Your task to perform on an android device: Show me popular games on the Play Store Image 0: 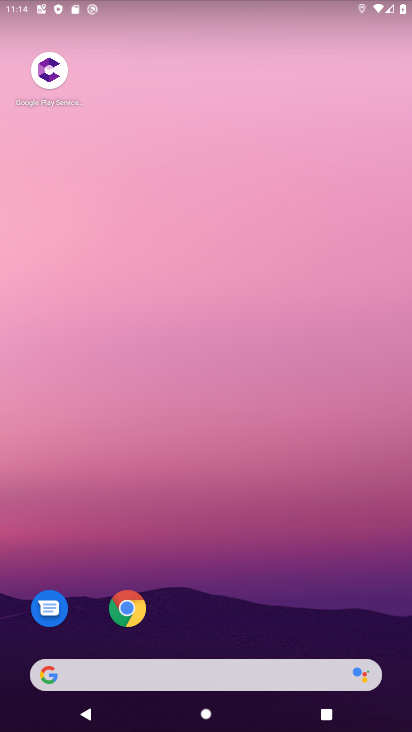
Step 0: drag from (275, 604) to (211, 0)
Your task to perform on an android device: Show me popular games on the Play Store Image 1: 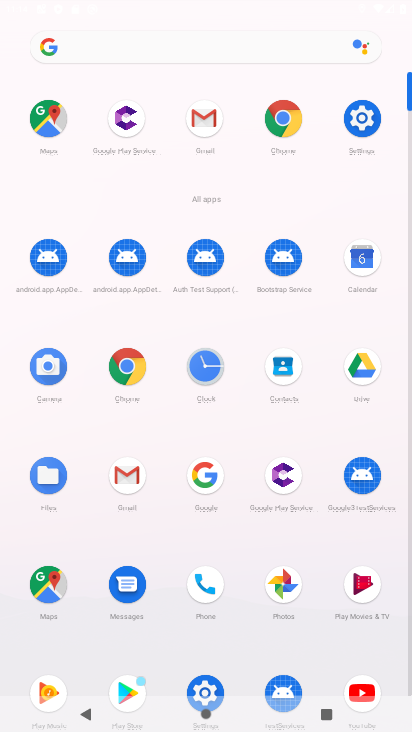
Step 1: click (127, 687)
Your task to perform on an android device: Show me popular games on the Play Store Image 2: 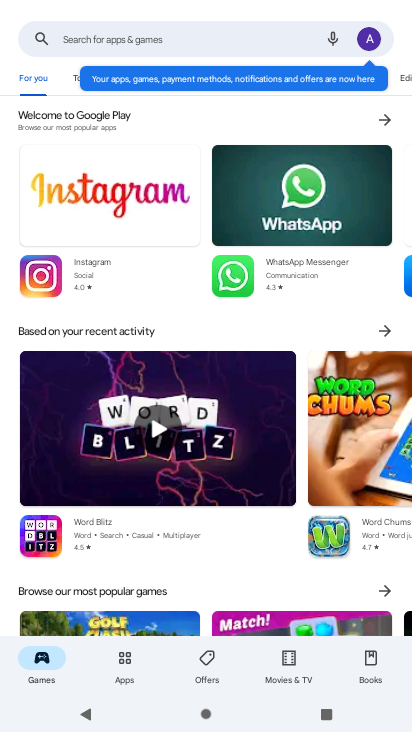
Step 2: click (163, 34)
Your task to perform on an android device: Show me popular games on the Play Store Image 3: 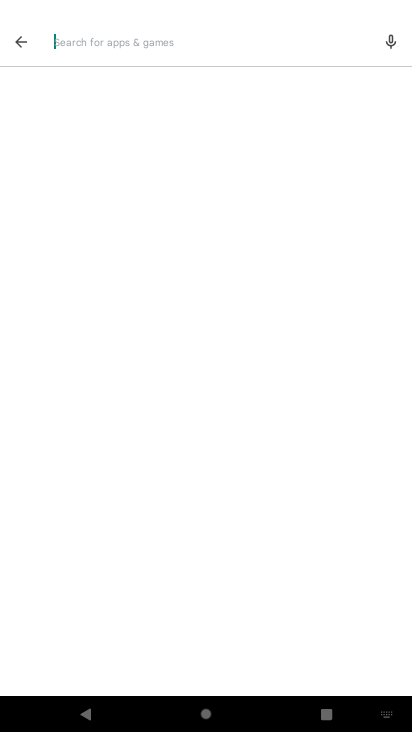
Step 3: type "popular games "
Your task to perform on an android device: Show me popular games on the Play Store Image 4: 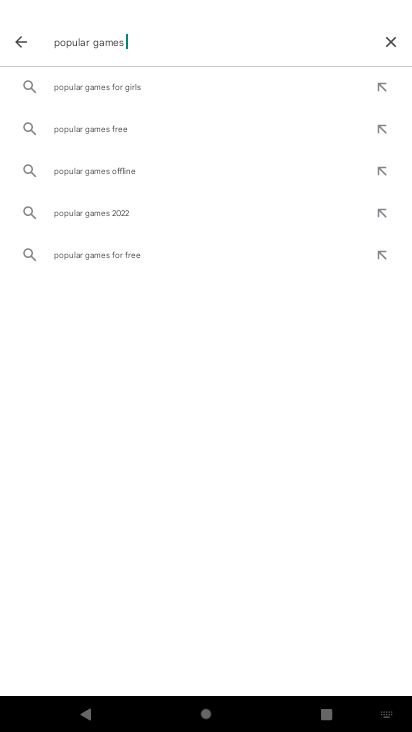
Step 4: click (116, 89)
Your task to perform on an android device: Show me popular games on the Play Store Image 5: 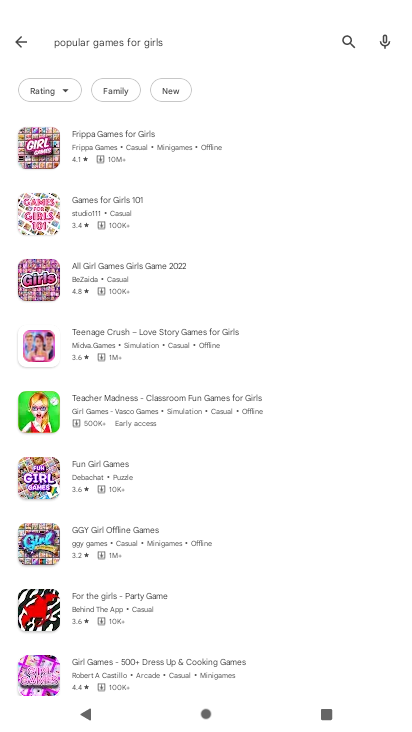
Step 5: task complete